Your task to perform on an android device: Go to settings Image 0: 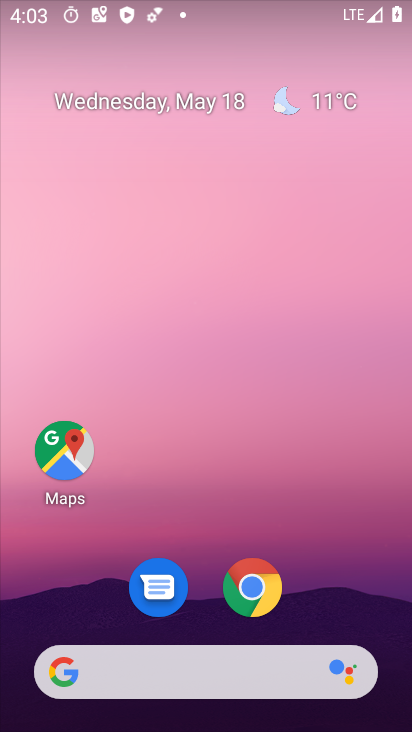
Step 0: drag from (170, 578) to (240, 0)
Your task to perform on an android device: Go to settings Image 1: 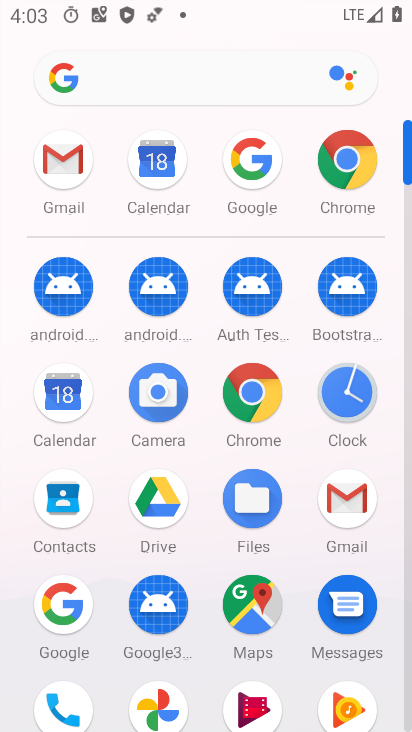
Step 1: drag from (189, 442) to (236, 51)
Your task to perform on an android device: Go to settings Image 2: 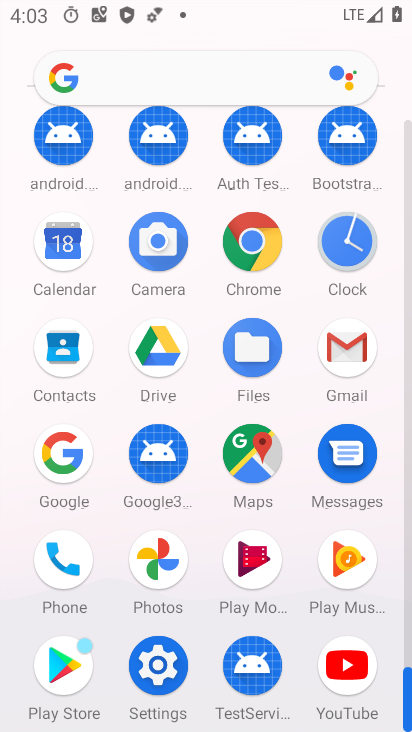
Step 2: click (154, 703)
Your task to perform on an android device: Go to settings Image 3: 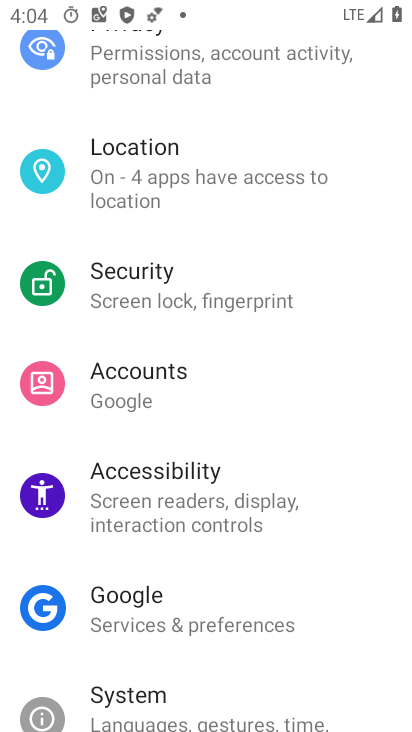
Step 3: task complete